Your task to perform on an android device: Search for vegetarian restaurants on Maps Image 0: 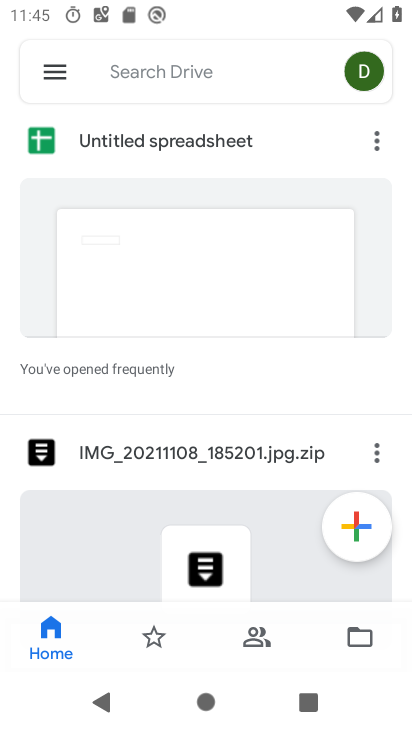
Step 0: press home button
Your task to perform on an android device: Search for vegetarian restaurants on Maps Image 1: 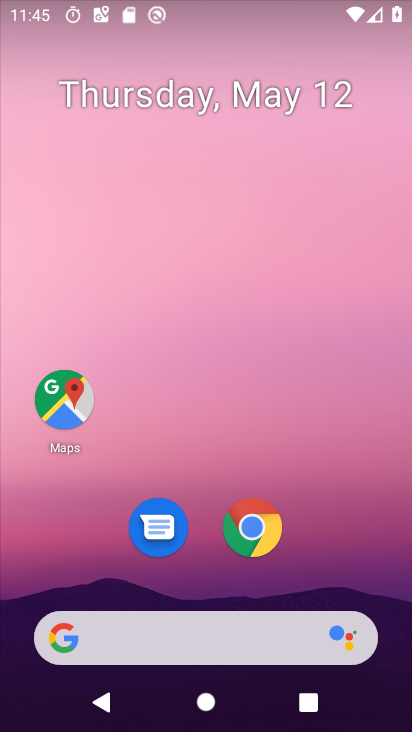
Step 1: drag from (242, 580) to (266, 230)
Your task to perform on an android device: Search for vegetarian restaurants on Maps Image 2: 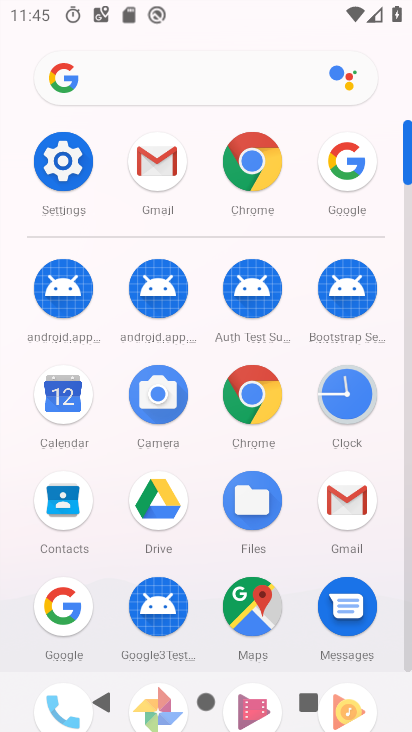
Step 2: click (55, 624)
Your task to perform on an android device: Search for vegetarian restaurants on Maps Image 3: 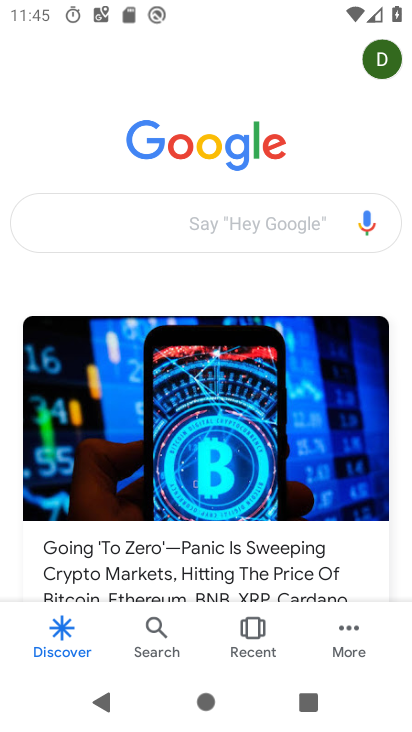
Step 3: click (158, 214)
Your task to perform on an android device: Search for vegetarian restaurants on Maps Image 4: 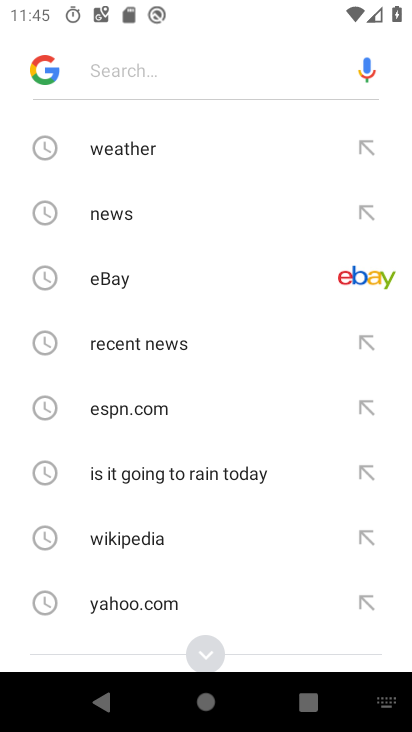
Step 4: press back button
Your task to perform on an android device: Search for vegetarian restaurants on Maps Image 5: 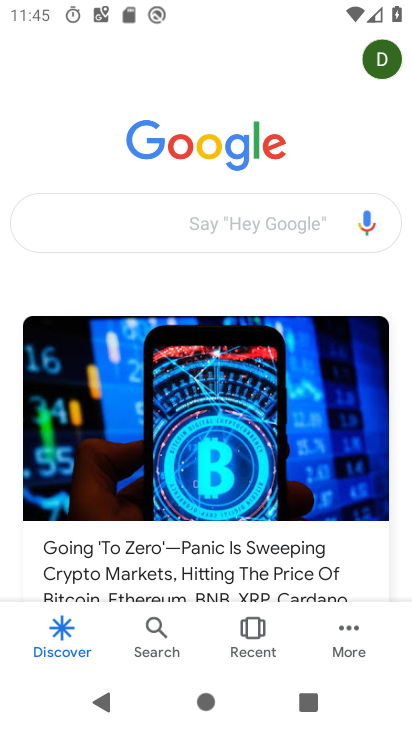
Step 5: press back button
Your task to perform on an android device: Search for vegetarian restaurants on Maps Image 6: 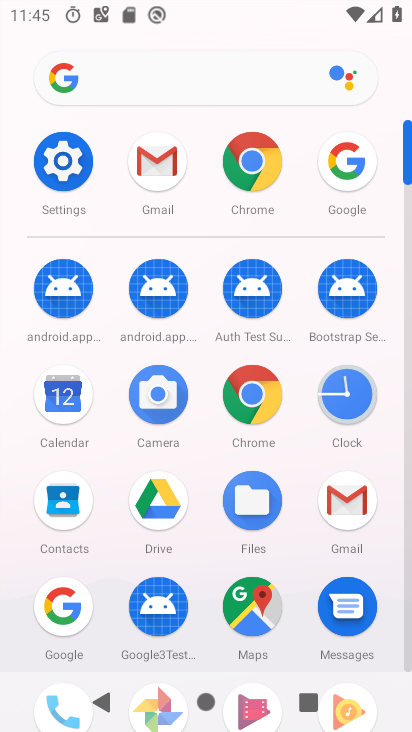
Step 6: click (261, 623)
Your task to perform on an android device: Search for vegetarian restaurants on Maps Image 7: 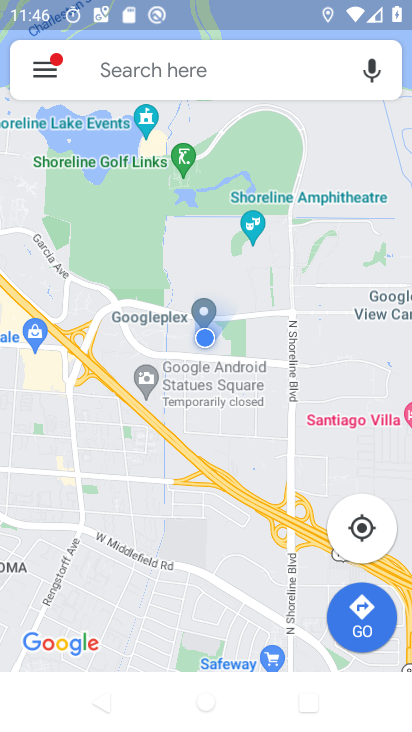
Step 7: click (201, 71)
Your task to perform on an android device: Search for vegetarian restaurants on Maps Image 8: 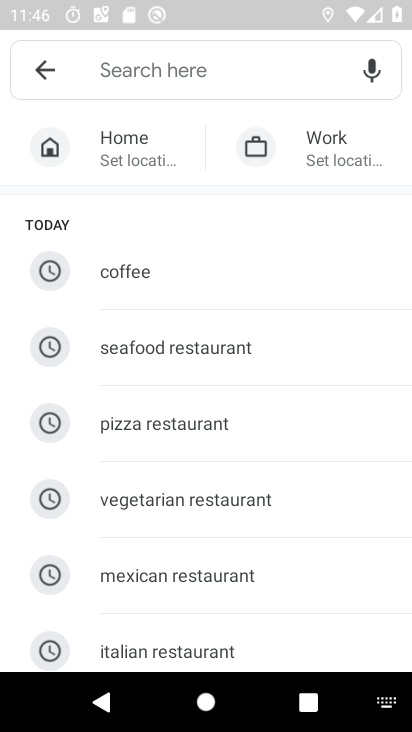
Step 8: click (195, 501)
Your task to perform on an android device: Search for vegetarian restaurants on Maps Image 9: 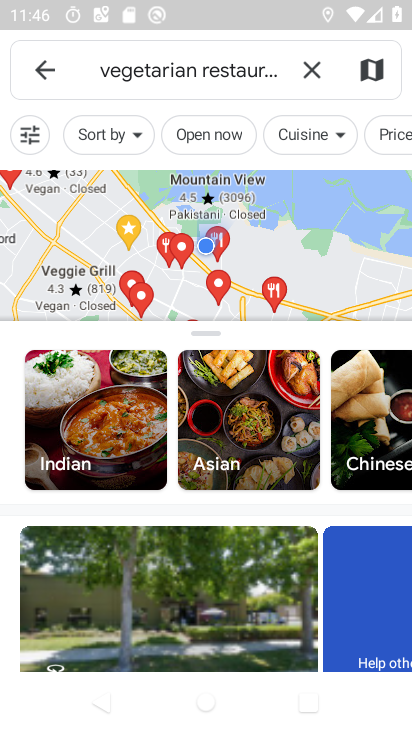
Step 9: task complete